Your task to perform on an android device: Open my contact list Image 0: 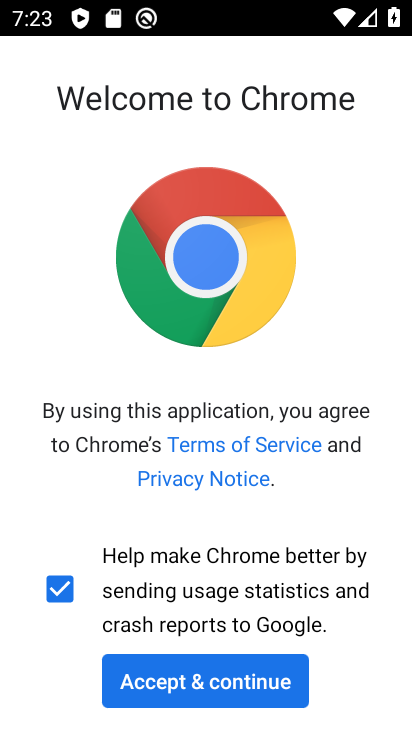
Step 0: press home button
Your task to perform on an android device: Open my contact list Image 1: 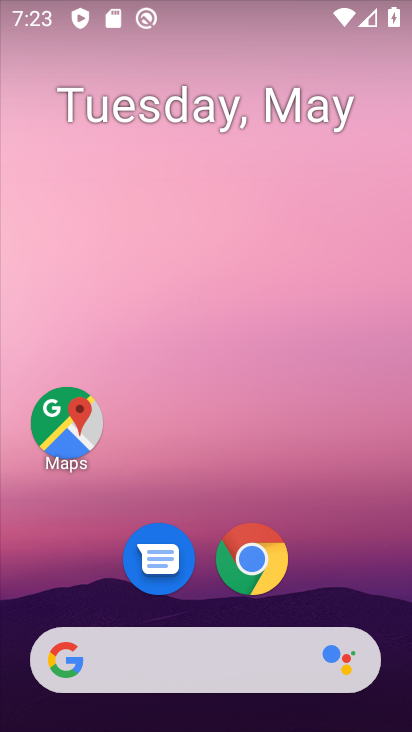
Step 1: drag from (394, 666) to (301, 2)
Your task to perform on an android device: Open my contact list Image 2: 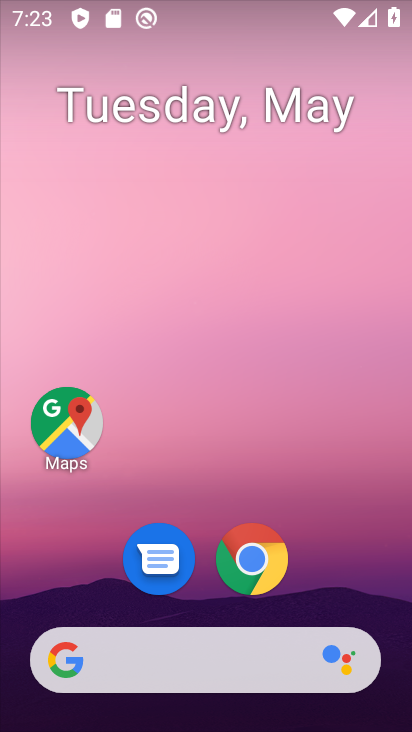
Step 2: drag from (340, 577) to (258, 0)
Your task to perform on an android device: Open my contact list Image 3: 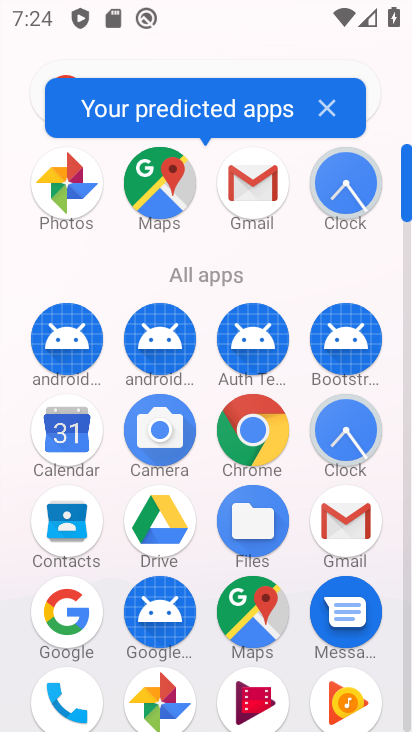
Step 3: click (67, 526)
Your task to perform on an android device: Open my contact list Image 4: 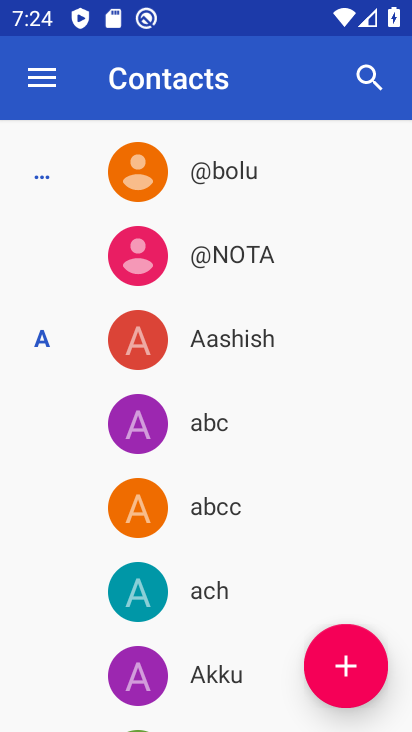
Step 4: task complete